Your task to perform on an android device: toggle sleep mode Image 0: 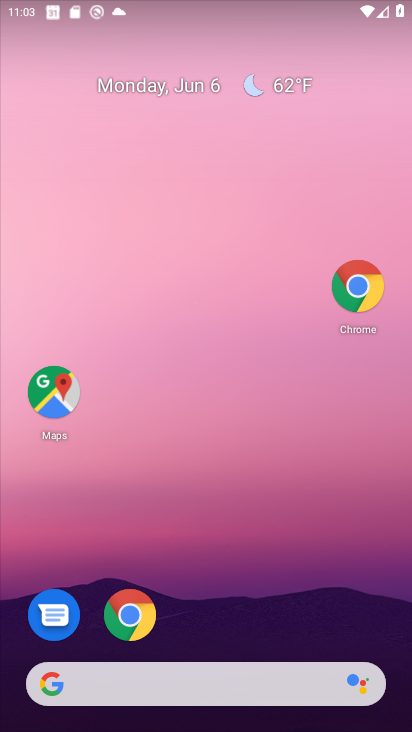
Step 0: drag from (256, 703) to (191, 228)
Your task to perform on an android device: toggle sleep mode Image 1: 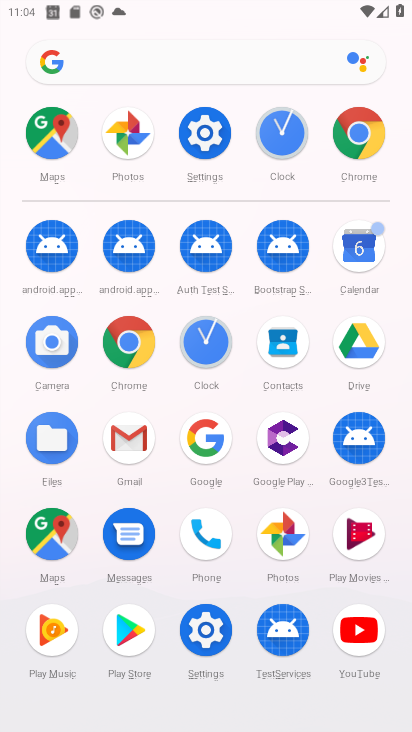
Step 1: click (206, 140)
Your task to perform on an android device: toggle sleep mode Image 2: 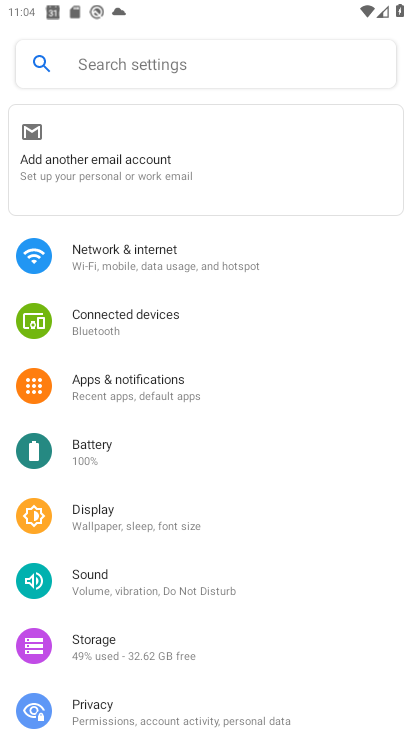
Step 2: click (85, 507)
Your task to perform on an android device: toggle sleep mode Image 3: 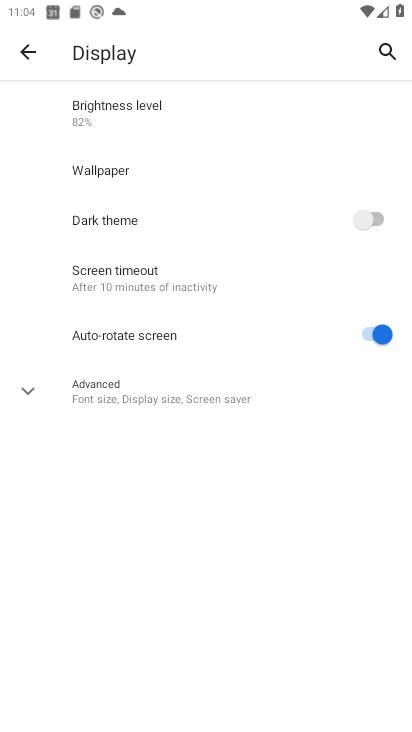
Step 3: click (125, 270)
Your task to perform on an android device: toggle sleep mode Image 4: 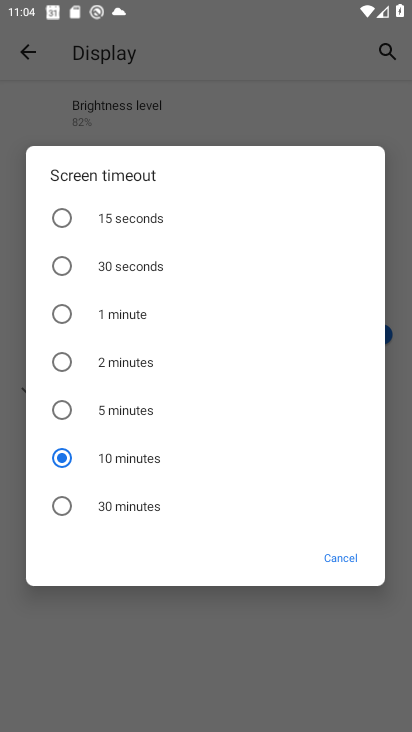
Step 4: click (54, 416)
Your task to perform on an android device: toggle sleep mode Image 5: 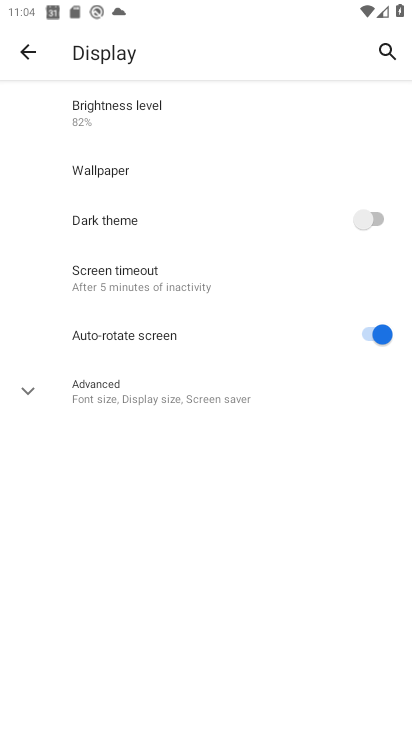
Step 5: task complete